Your task to perform on an android device: stop showing notifications on the lock screen Image 0: 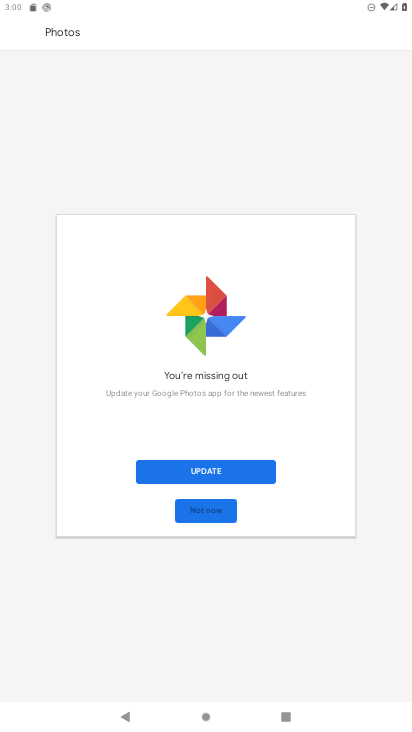
Step 0: press home button
Your task to perform on an android device: stop showing notifications on the lock screen Image 1: 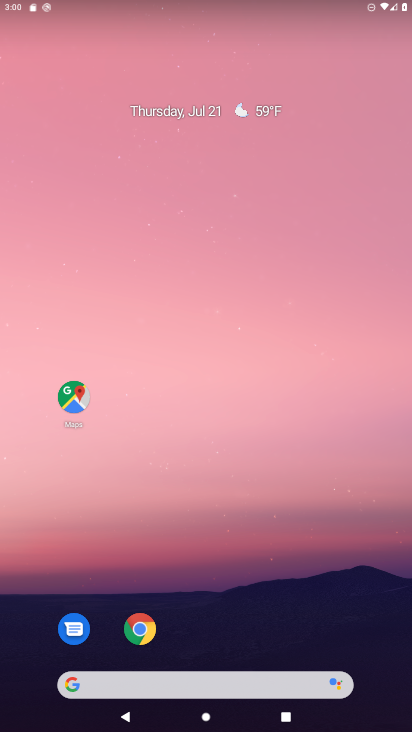
Step 1: drag from (228, 715) to (214, 305)
Your task to perform on an android device: stop showing notifications on the lock screen Image 2: 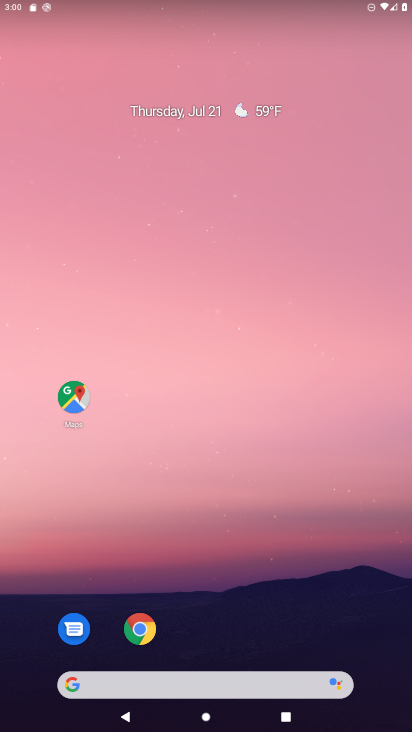
Step 2: drag from (220, 723) to (221, 236)
Your task to perform on an android device: stop showing notifications on the lock screen Image 3: 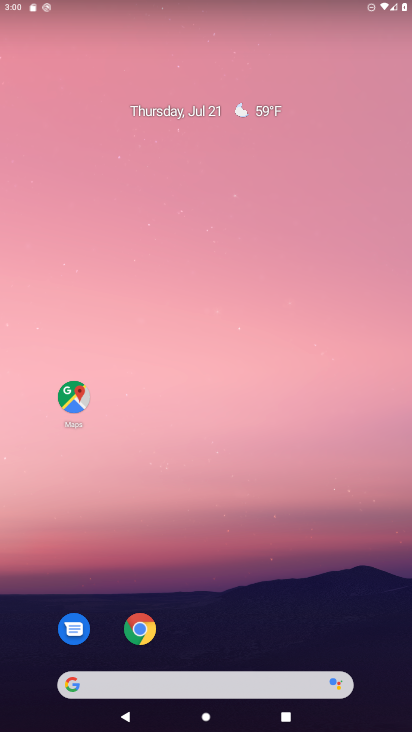
Step 3: drag from (233, 712) to (233, 118)
Your task to perform on an android device: stop showing notifications on the lock screen Image 4: 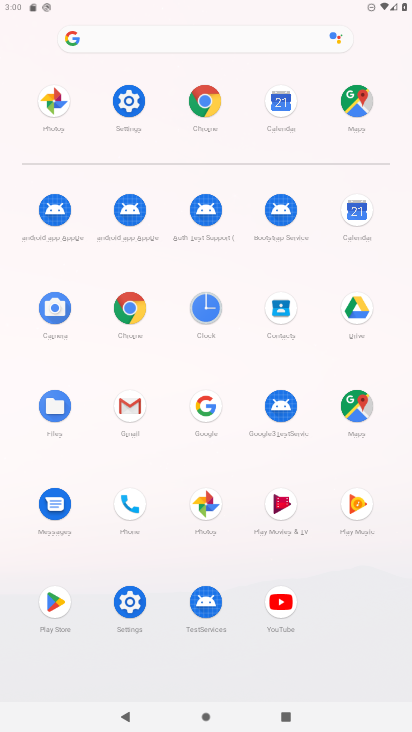
Step 4: click (118, 96)
Your task to perform on an android device: stop showing notifications on the lock screen Image 5: 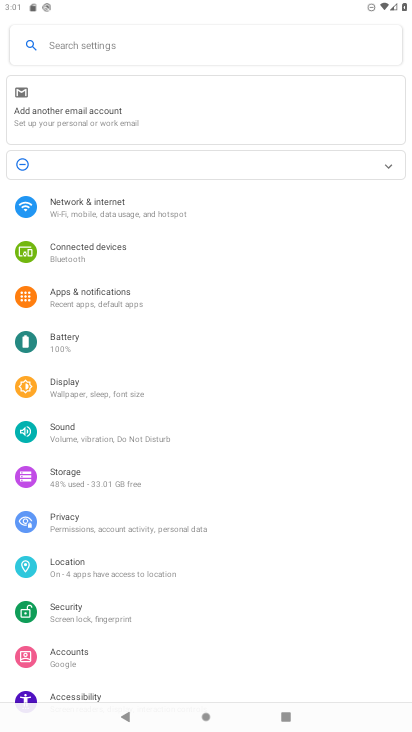
Step 5: click (95, 290)
Your task to perform on an android device: stop showing notifications on the lock screen Image 6: 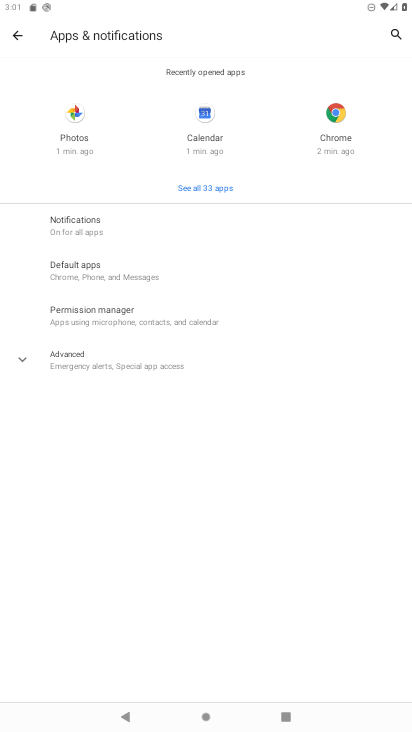
Step 6: click (81, 227)
Your task to perform on an android device: stop showing notifications on the lock screen Image 7: 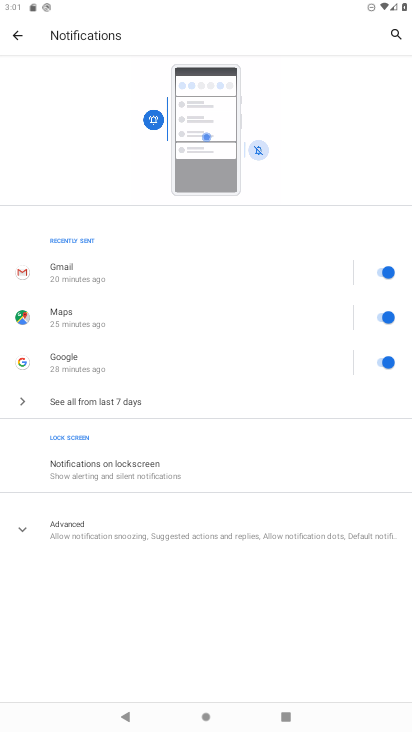
Step 7: click (94, 471)
Your task to perform on an android device: stop showing notifications on the lock screen Image 8: 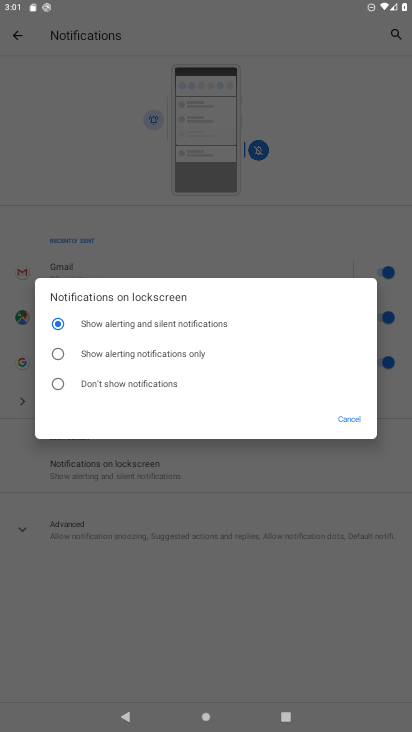
Step 8: click (57, 381)
Your task to perform on an android device: stop showing notifications on the lock screen Image 9: 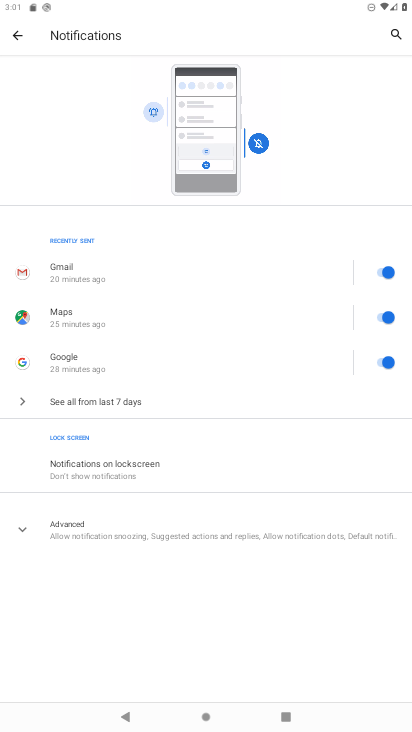
Step 9: task complete